Your task to perform on an android device: Open Android settings Image 0: 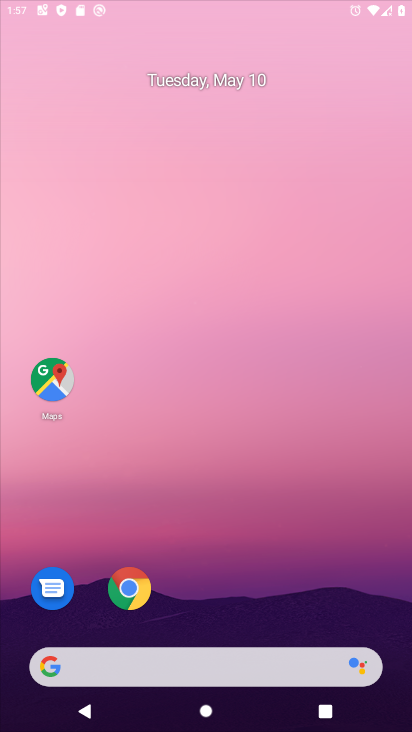
Step 0: click (230, 245)
Your task to perform on an android device: Open Android settings Image 1: 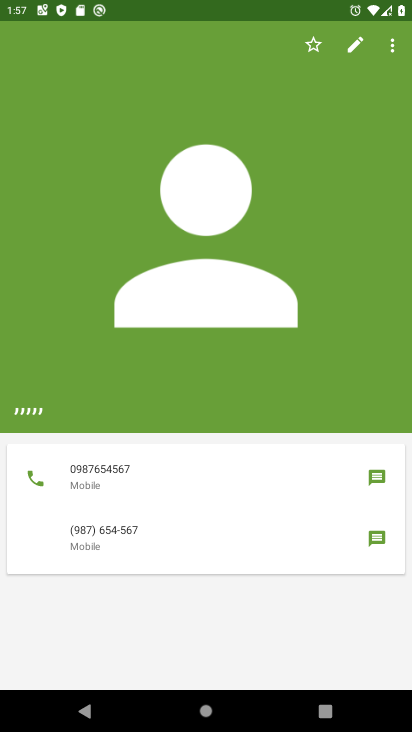
Step 1: press home button
Your task to perform on an android device: Open Android settings Image 2: 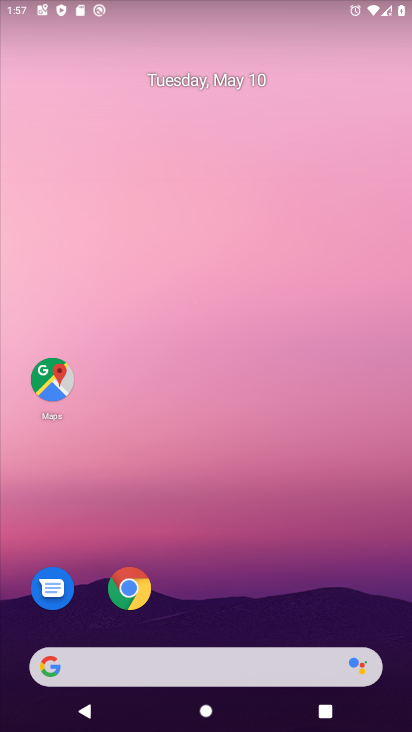
Step 2: drag from (288, 578) to (334, 229)
Your task to perform on an android device: Open Android settings Image 3: 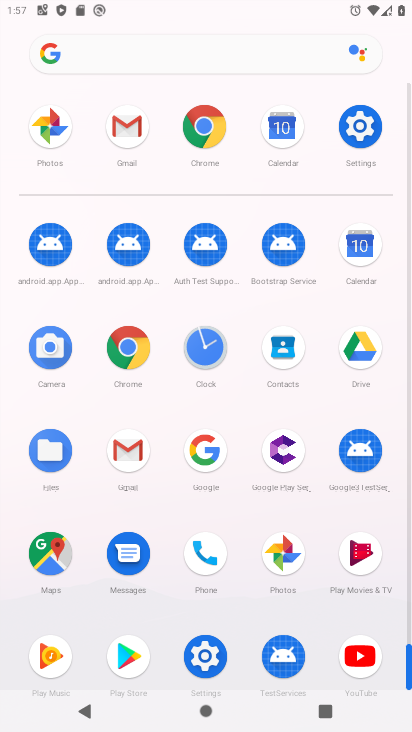
Step 3: click (367, 120)
Your task to perform on an android device: Open Android settings Image 4: 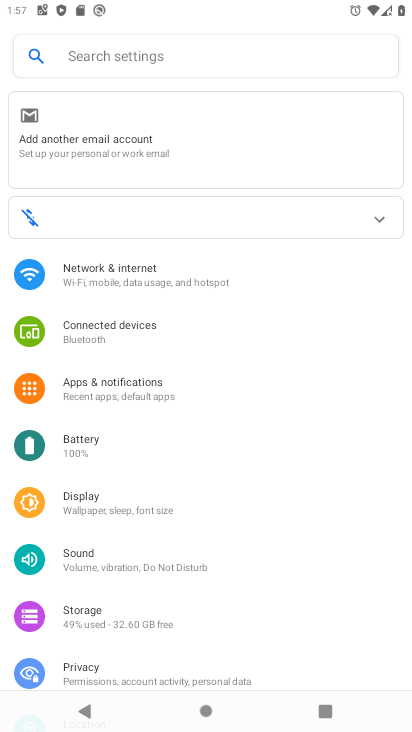
Step 4: task complete